Your task to perform on an android device: open device folders in google photos Image 0: 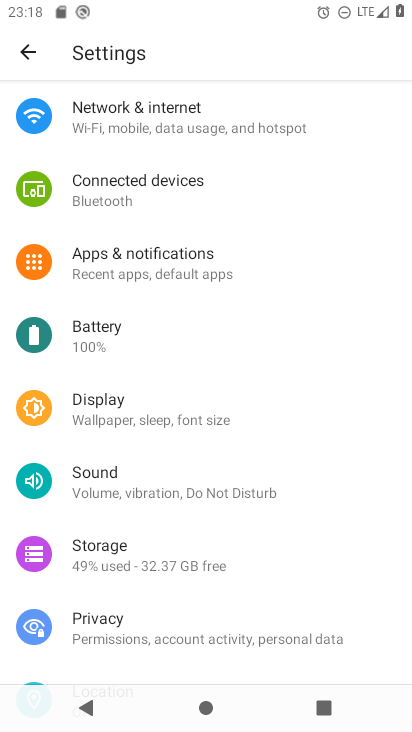
Step 0: press home button
Your task to perform on an android device: open device folders in google photos Image 1: 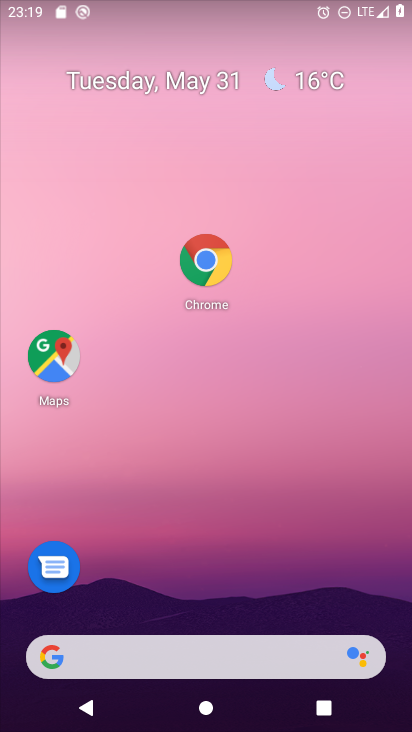
Step 1: drag from (187, 396) to (187, 340)
Your task to perform on an android device: open device folders in google photos Image 2: 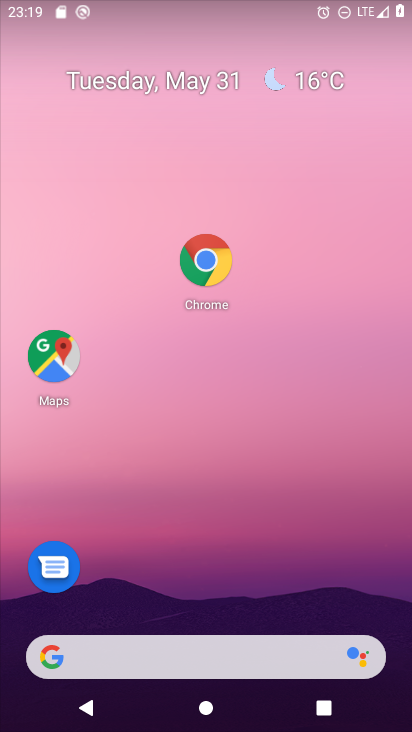
Step 2: drag from (157, 643) to (156, 209)
Your task to perform on an android device: open device folders in google photos Image 3: 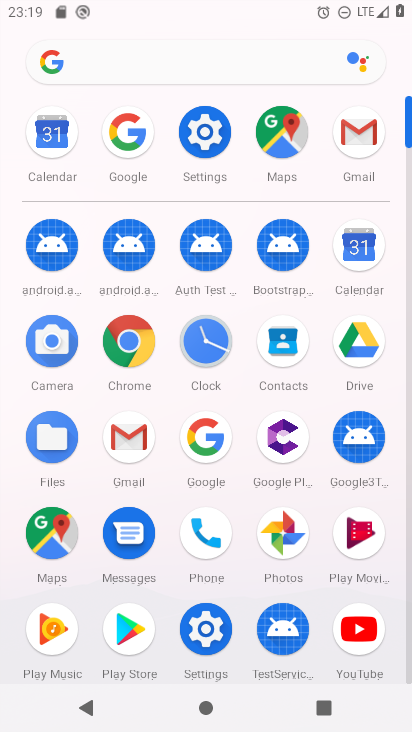
Step 3: click (300, 539)
Your task to perform on an android device: open device folders in google photos Image 4: 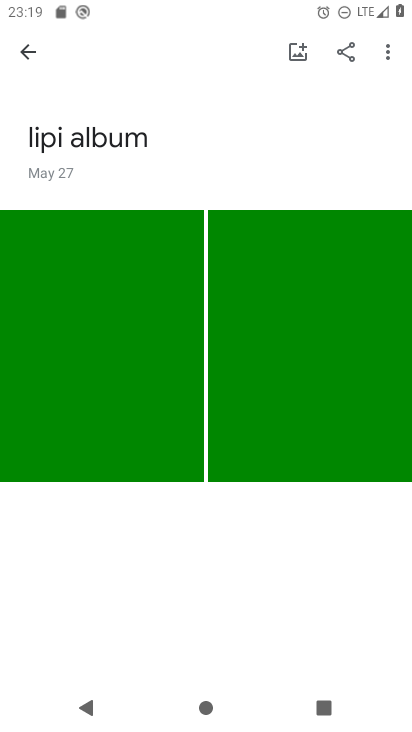
Step 4: click (35, 48)
Your task to perform on an android device: open device folders in google photos Image 5: 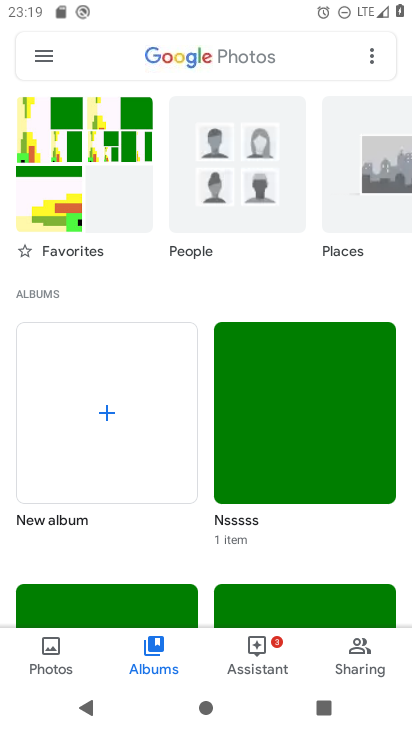
Step 5: click (45, 60)
Your task to perform on an android device: open device folders in google photos Image 6: 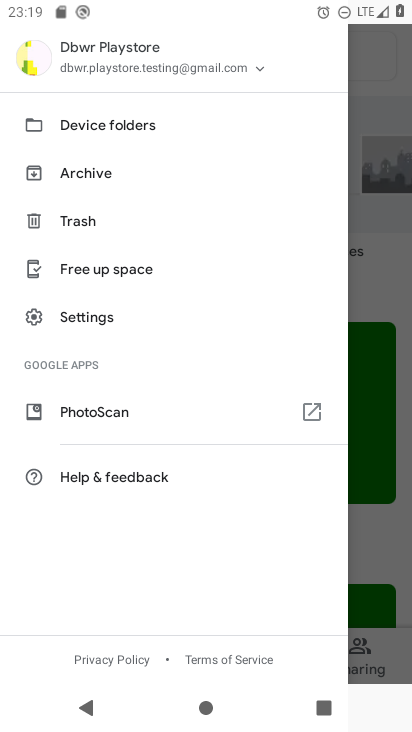
Step 6: click (68, 137)
Your task to perform on an android device: open device folders in google photos Image 7: 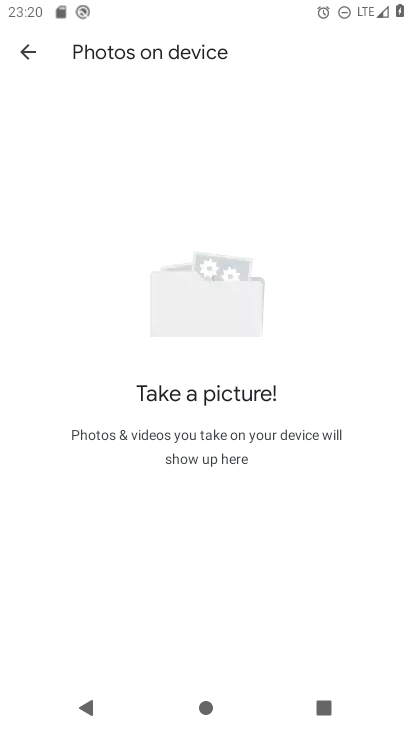
Step 7: task complete